Your task to perform on an android device: open a new tab in the chrome app Image 0: 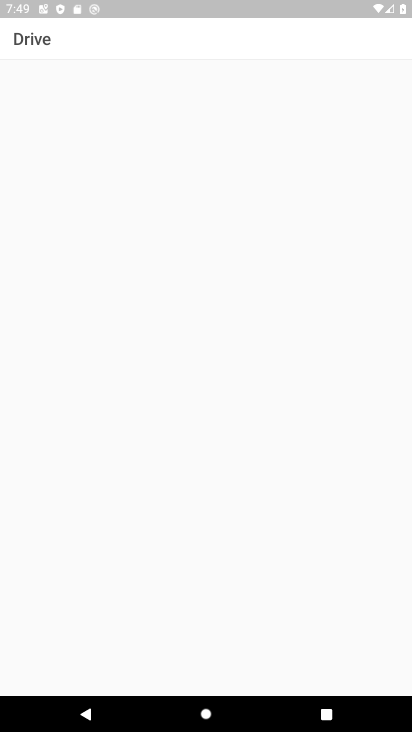
Step 0: press home button
Your task to perform on an android device: open a new tab in the chrome app Image 1: 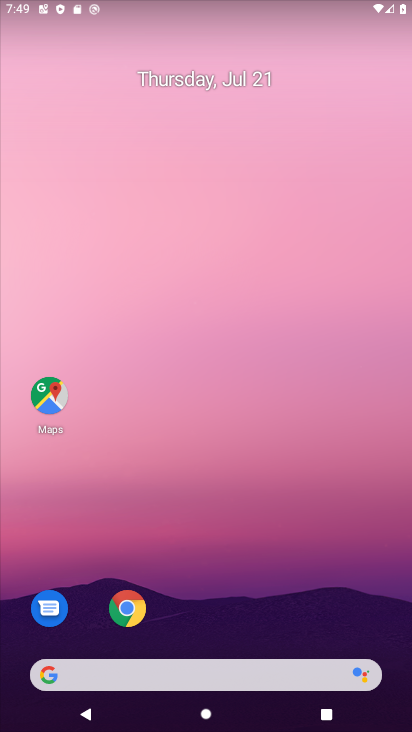
Step 1: click (128, 606)
Your task to perform on an android device: open a new tab in the chrome app Image 2: 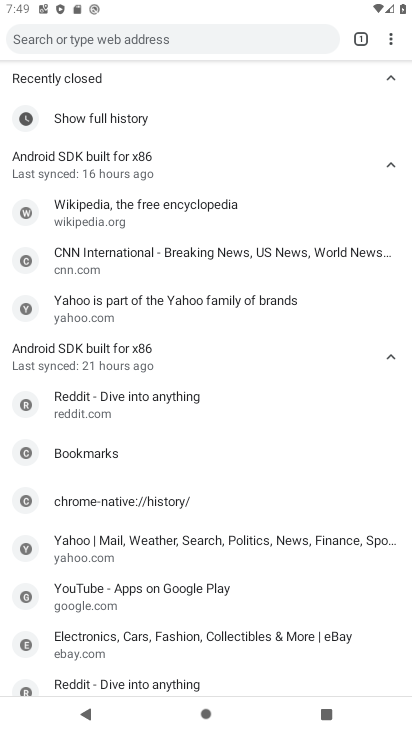
Step 2: click (391, 36)
Your task to perform on an android device: open a new tab in the chrome app Image 3: 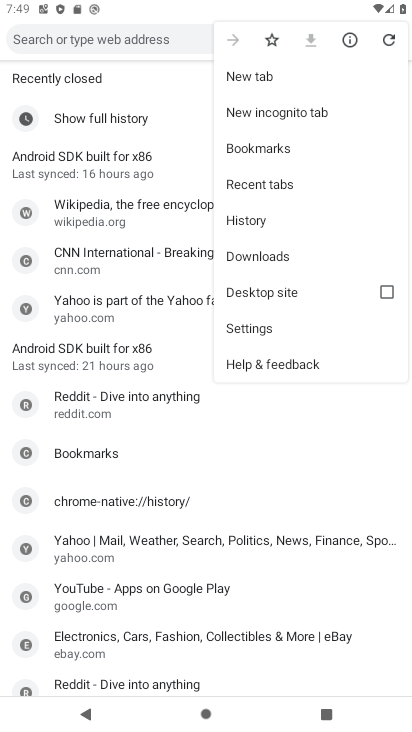
Step 3: click (268, 75)
Your task to perform on an android device: open a new tab in the chrome app Image 4: 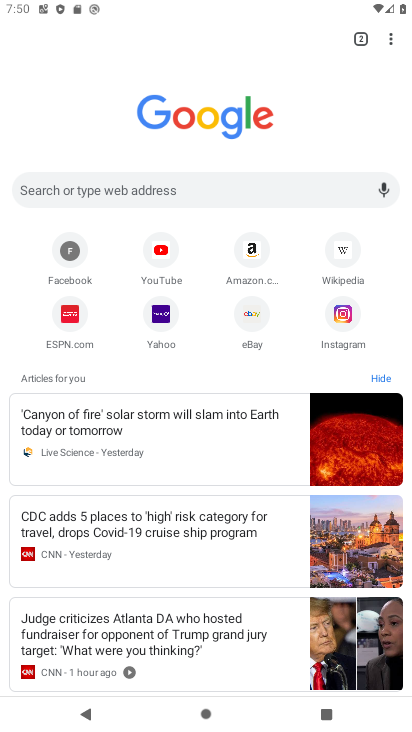
Step 4: task complete